Your task to perform on an android device: open app "YouTube Kids" Image 0: 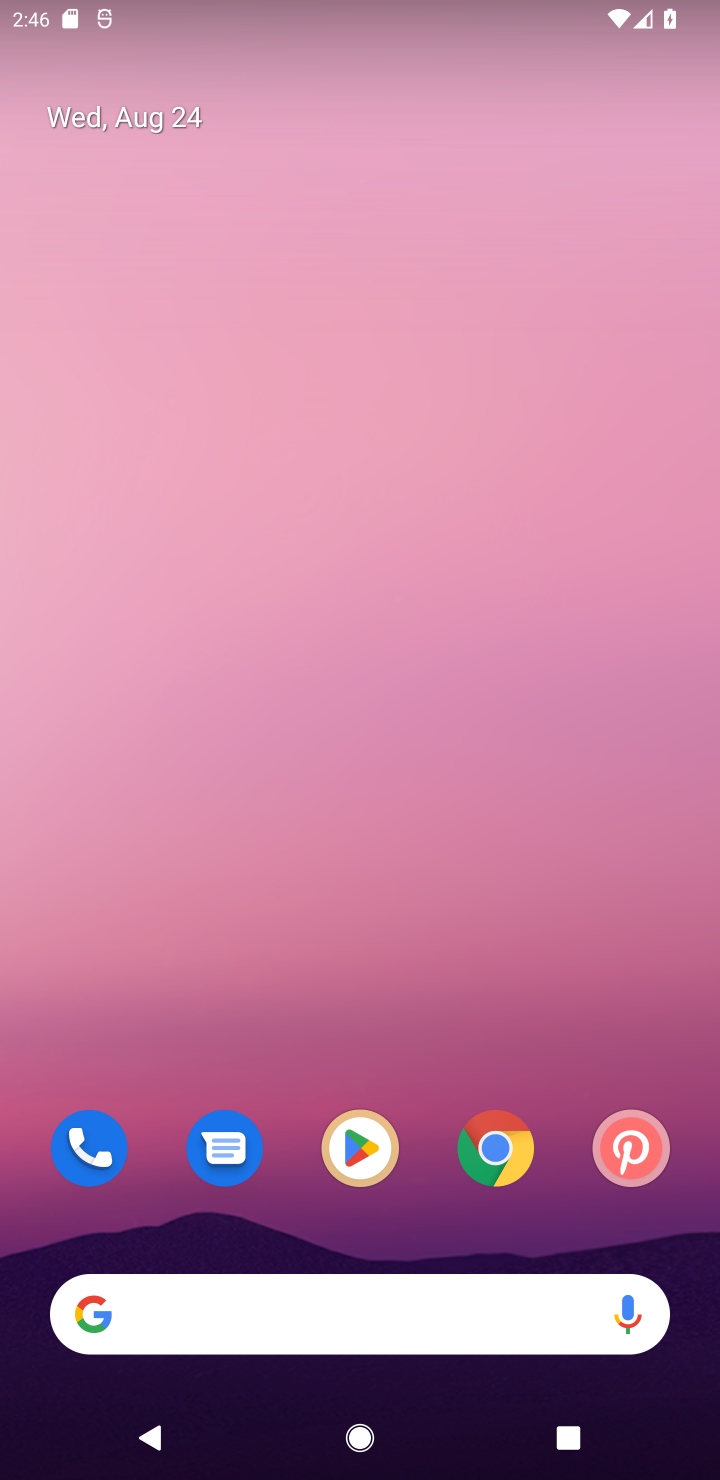
Step 0: drag from (385, 1252) to (447, 366)
Your task to perform on an android device: open app "YouTube Kids" Image 1: 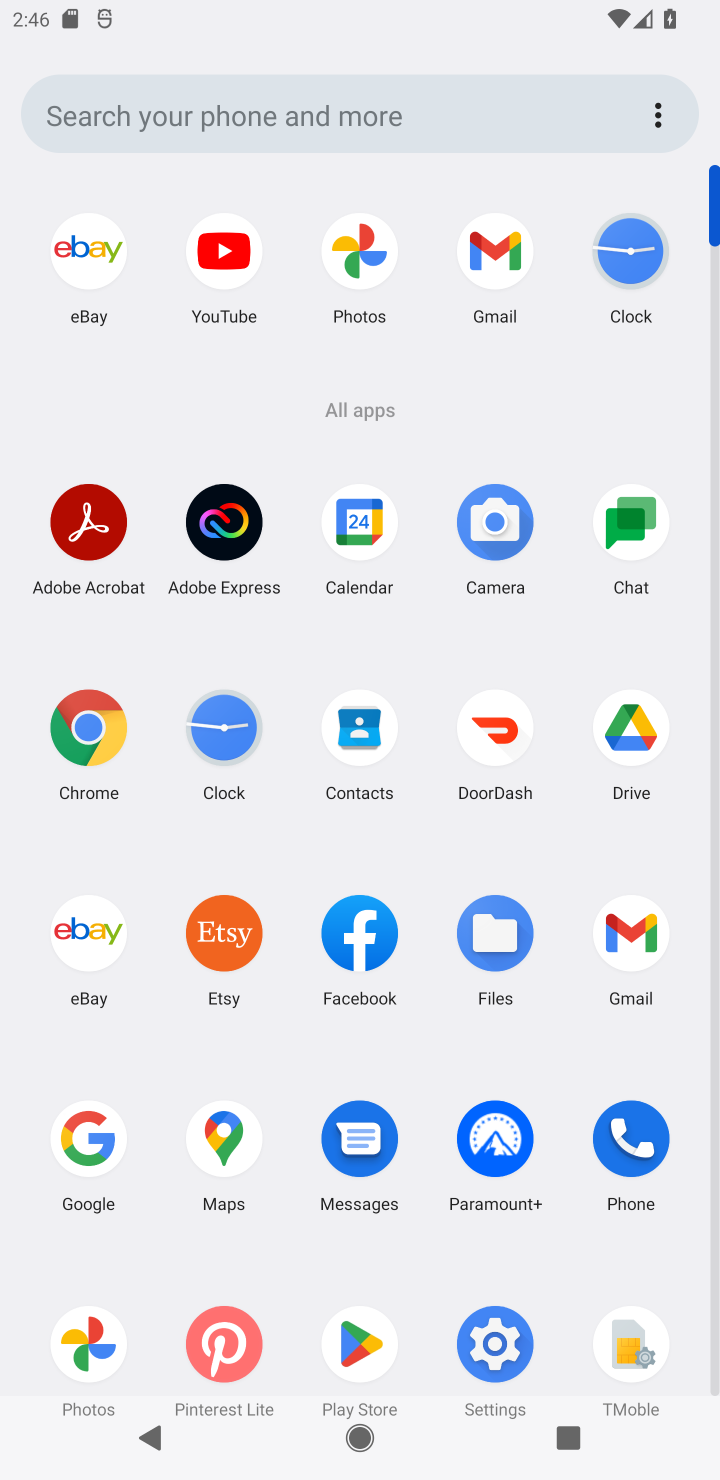
Step 1: click (367, 1334)
Your task to perform on an android device: open app "YouTube Kids" Image 2: 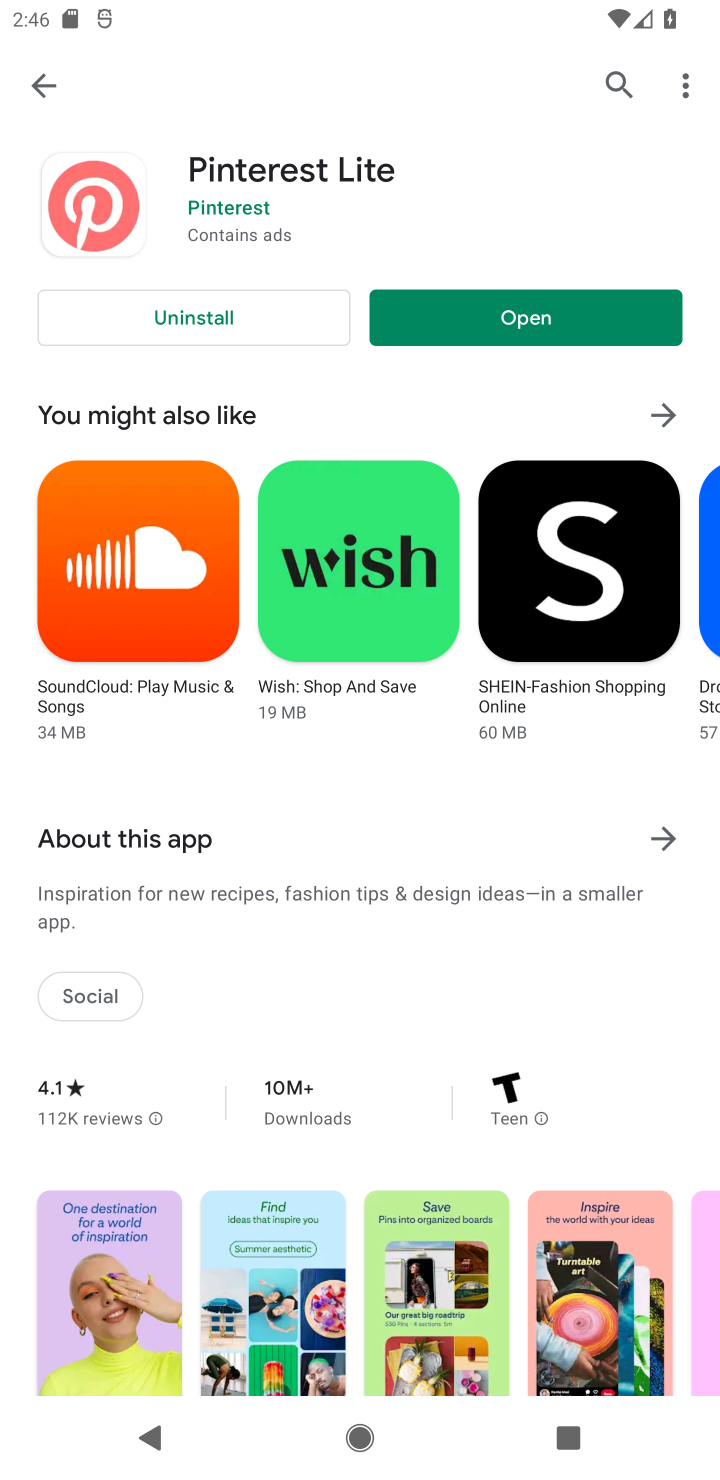
Step 2: click (52, 70)
Your task to perform on an android device: open app "YouTube Kids" Image 3: 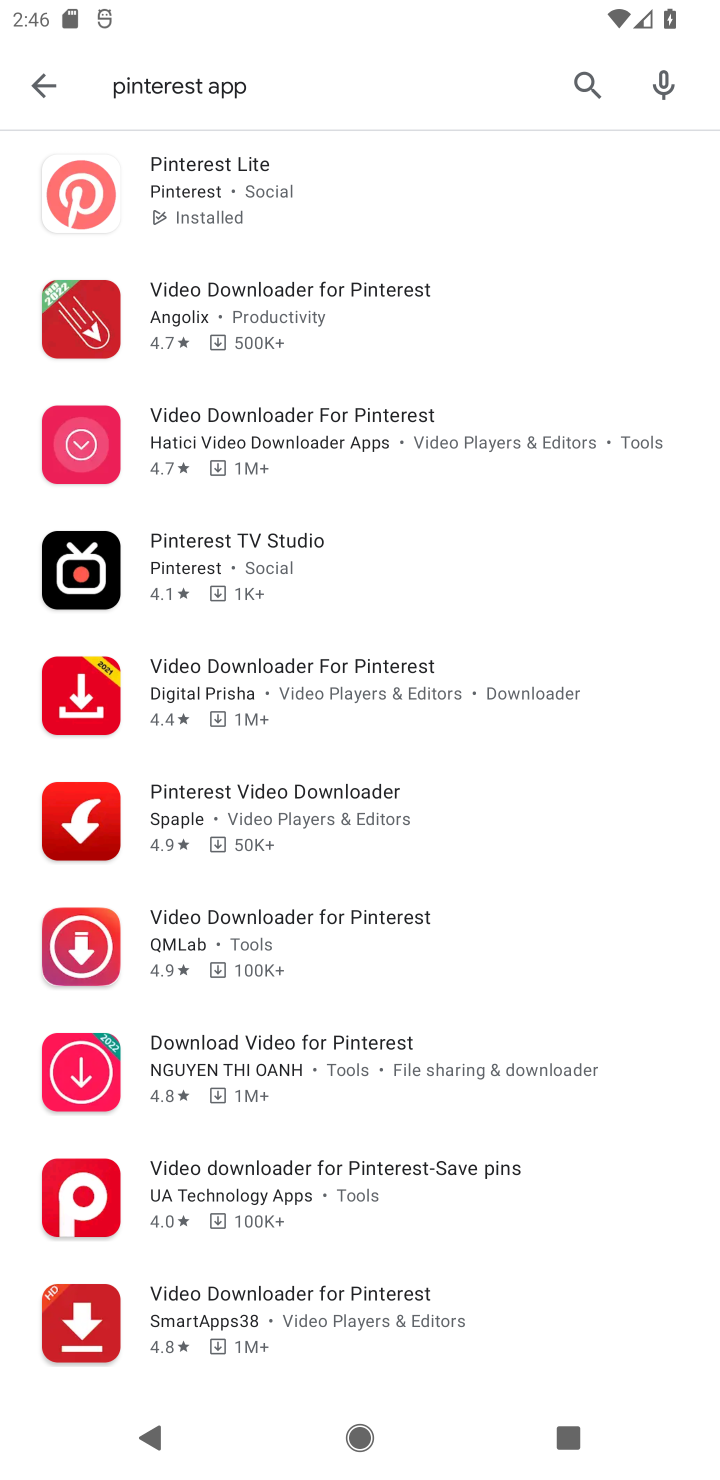
Step 3: click (59, 84)
Your task to perform on an android device: open app "YouTube Kids" Image 4: 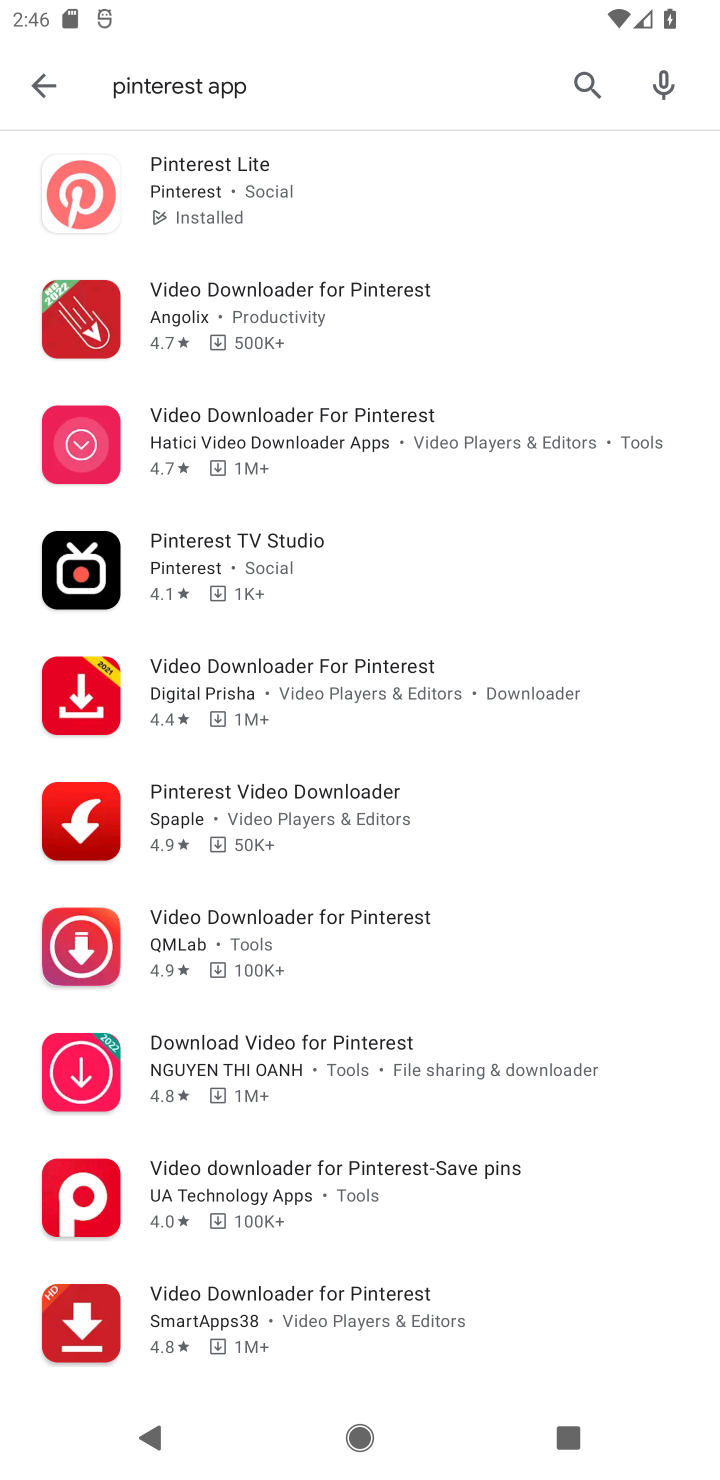
Step 4: click (32, 75)
Your task to perform on an android device: open app "YouTube Kids" Image 5: 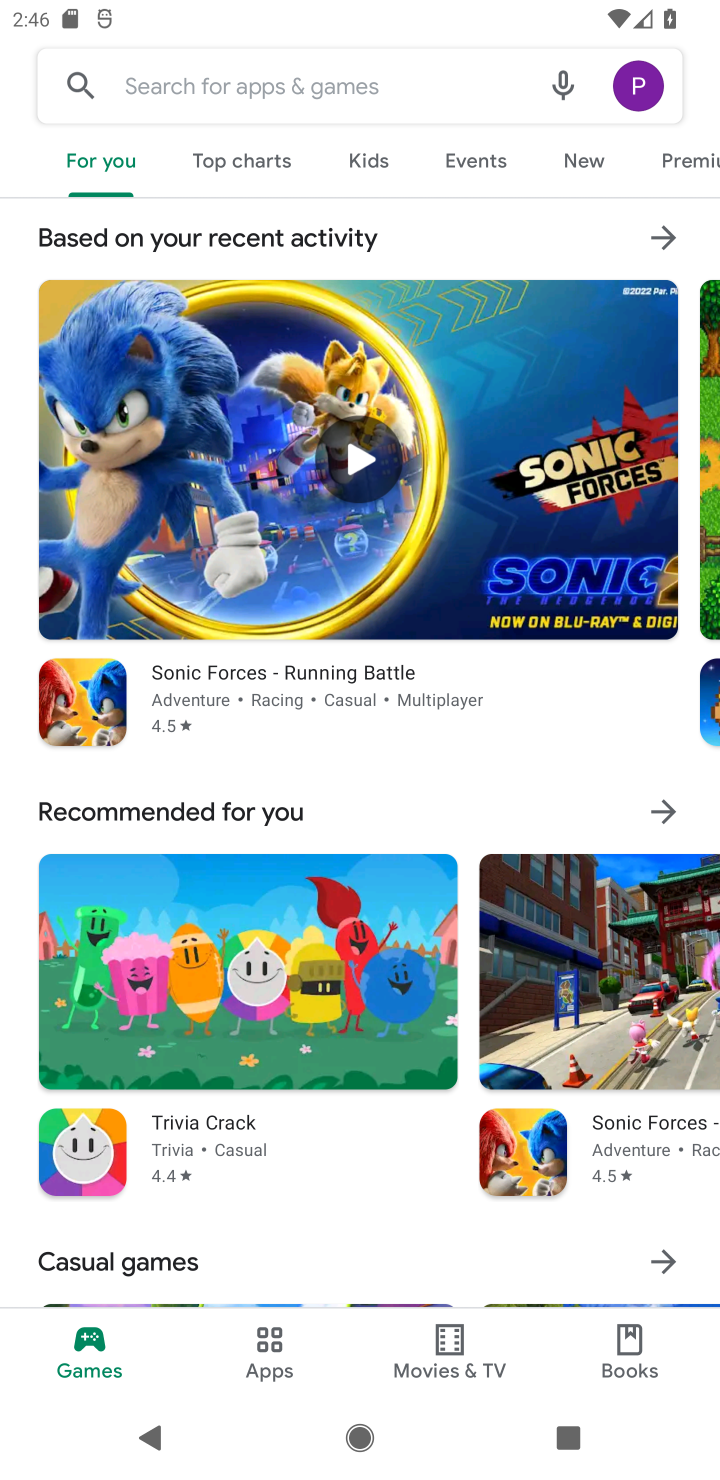
Step 5: click (230, 78)
Your task to perform on an android device: open app "YouTube Kids" Image 6: 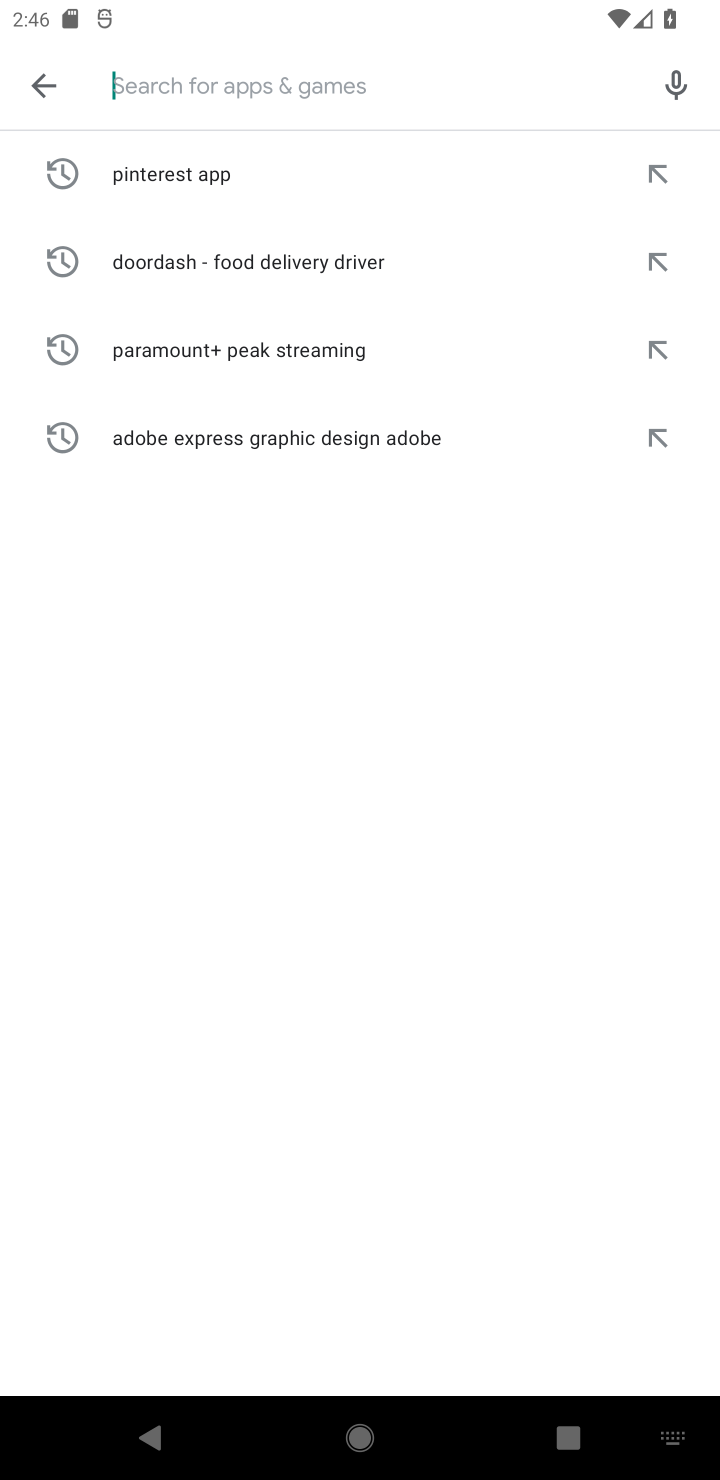
Step 6: type "YouTube Kids "
Your task to perform on an android device: open app "YouTube Kids" Image 7: 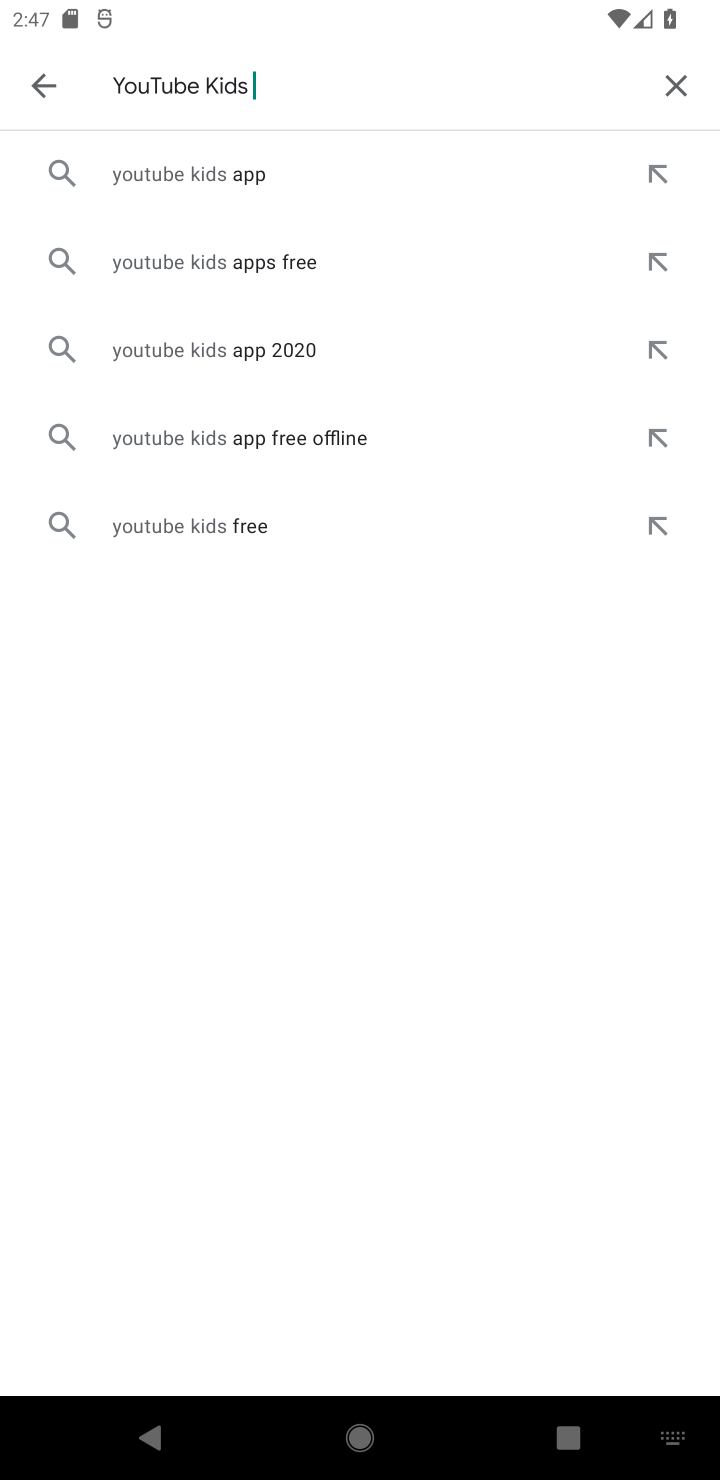
Step 7: click (122, 165)
Your task to perform on an android device: open app "YouTube Kids" Image 8: 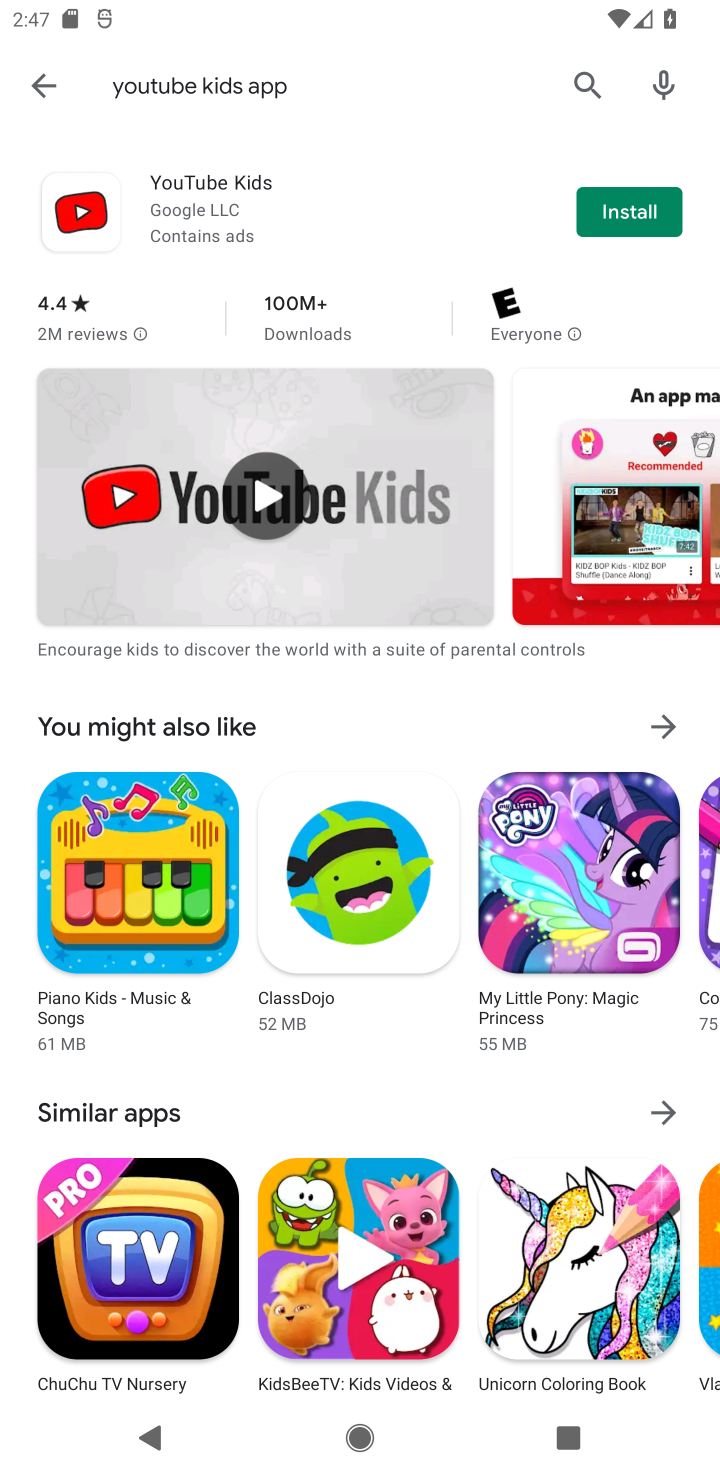
Step 8: click (585, 216)
Your task to perform on an android device: open app "YouTube Kids" Image 9: 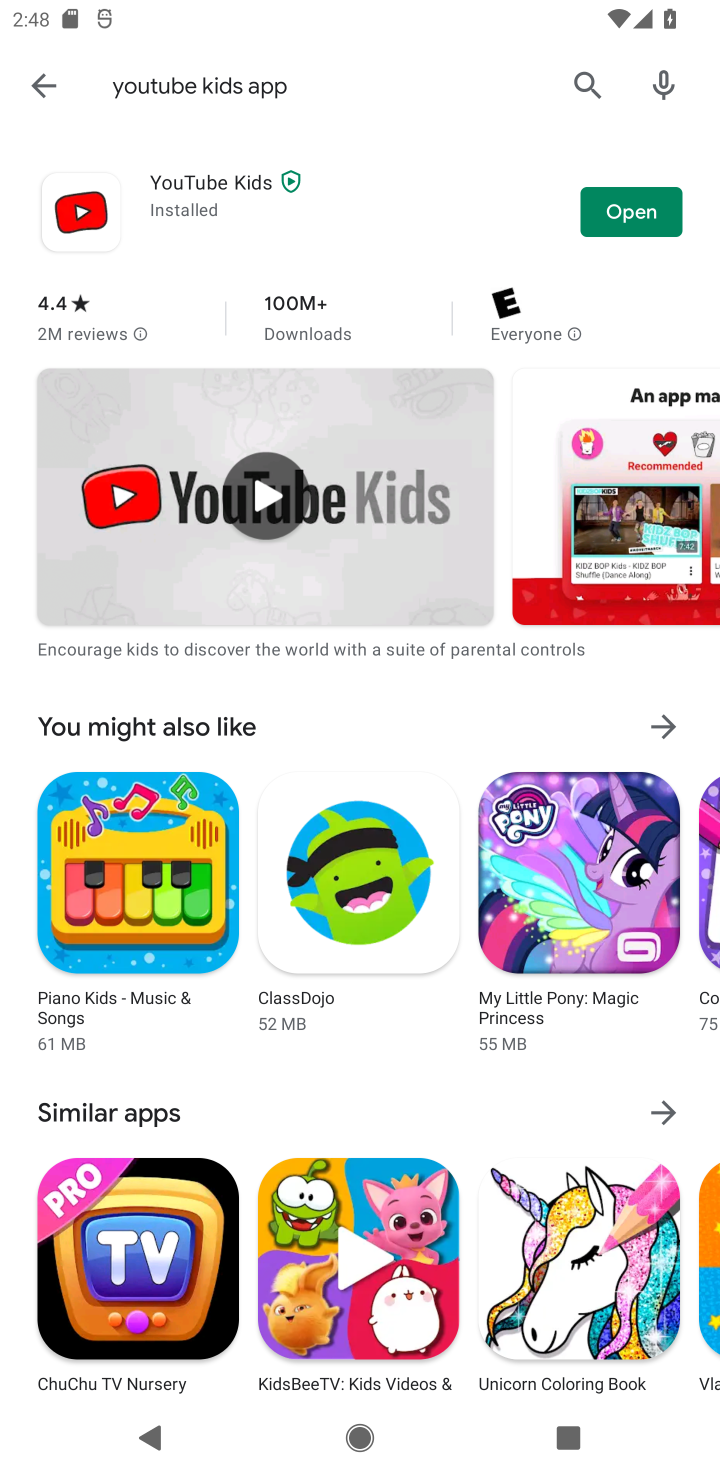
Step 9: click (655, 198)
Your task to perform on an android device: open app "YouTube Kids" Image 10: 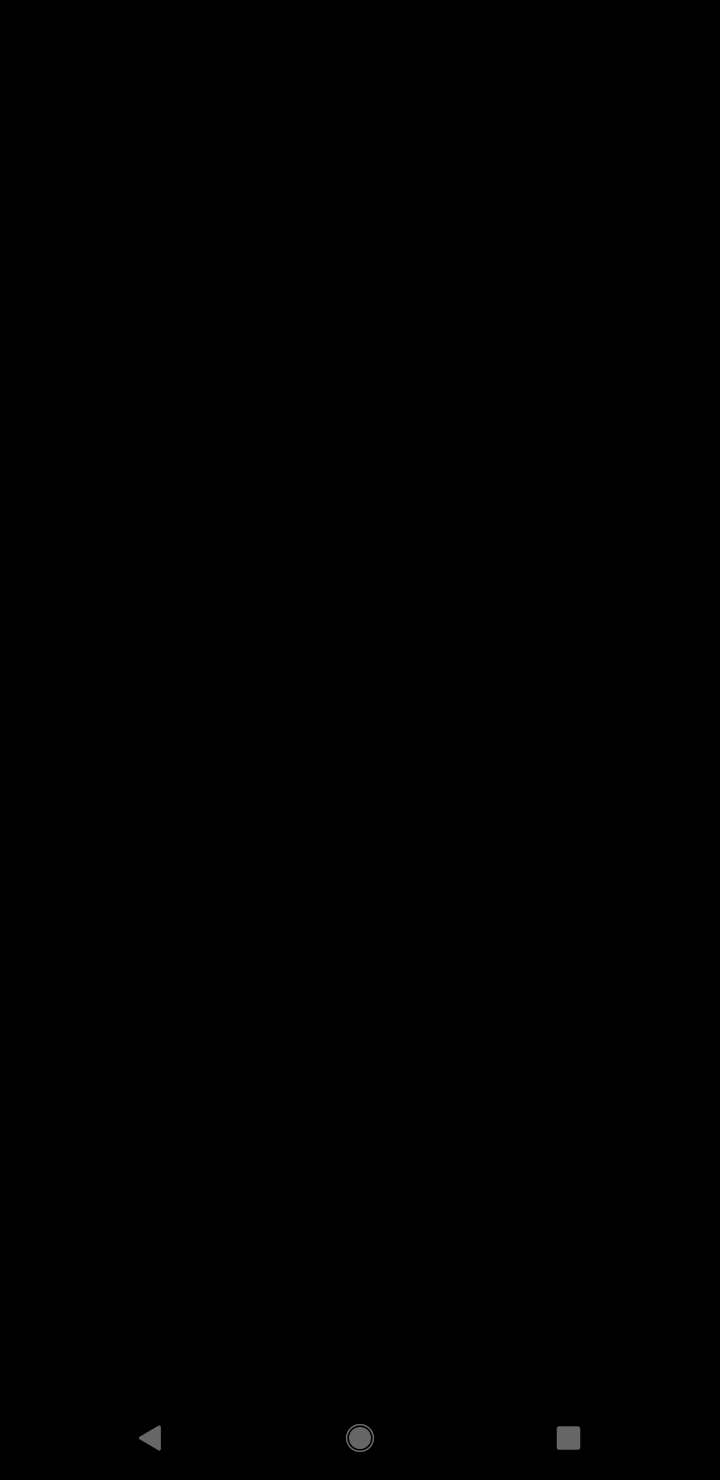
Step 10: task complete